Your task to perform on an android device: Open the Play Movies app and select the watchlist tab. Image 0: 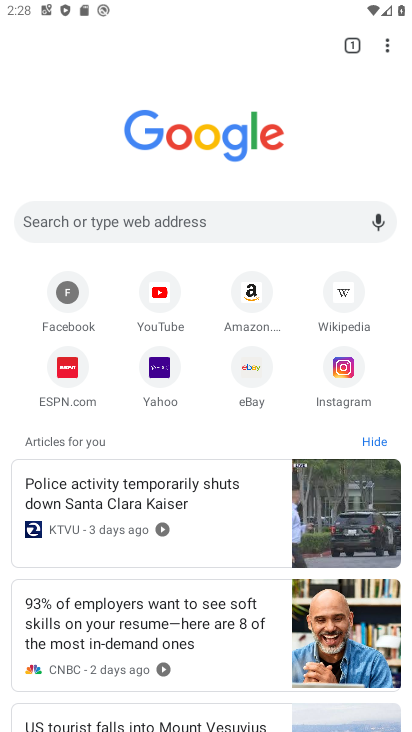
Step 0: press home button
Your task to perform on an android device: Open the Play Movies app and select the watchlist tab. Image 1: 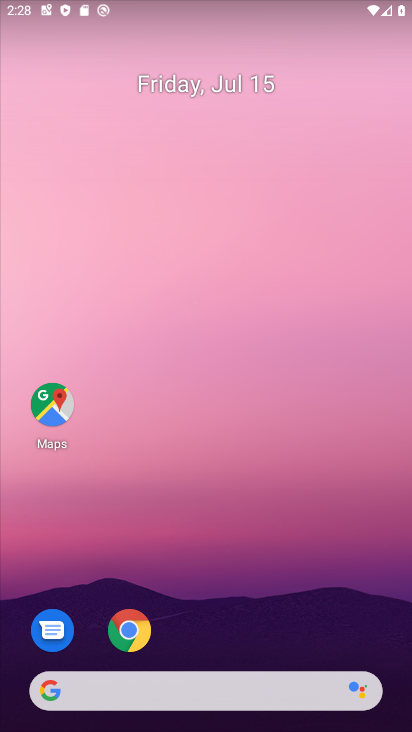
Step 1: drag from (220, 647) to (229, 8)
Your task to perform on an android device: Open the Play Movies app and select the watchlist tab. Image 2: 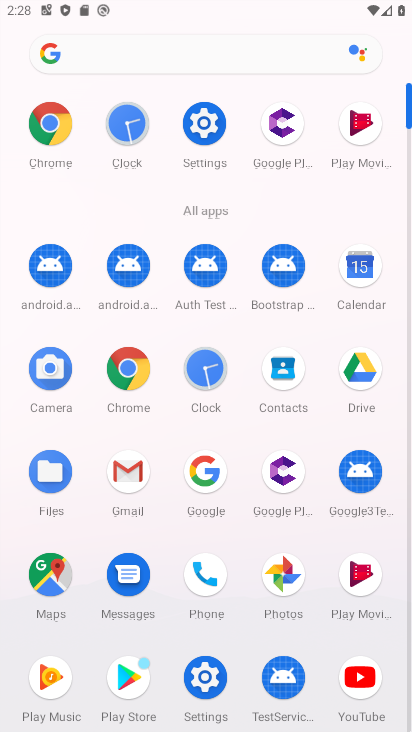
Step 2: click (369, 589)
Your task to perform on an android device: Open the Play Movies app and select the watchlist tab. Image 3: 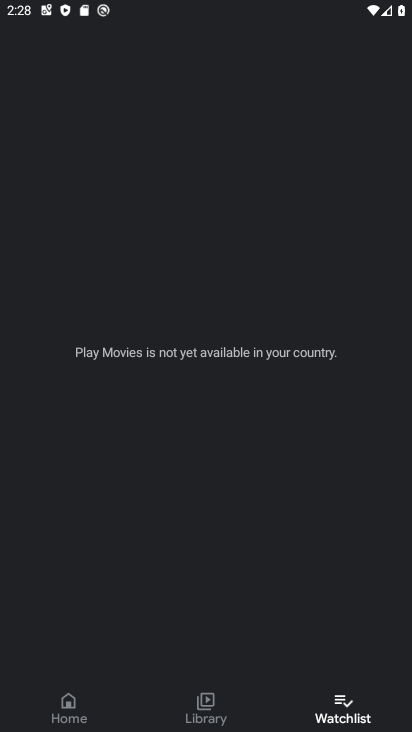
Step 3: task complete